Your task to perform on an android device: Open calendar and show me the second week of next month Image 0: 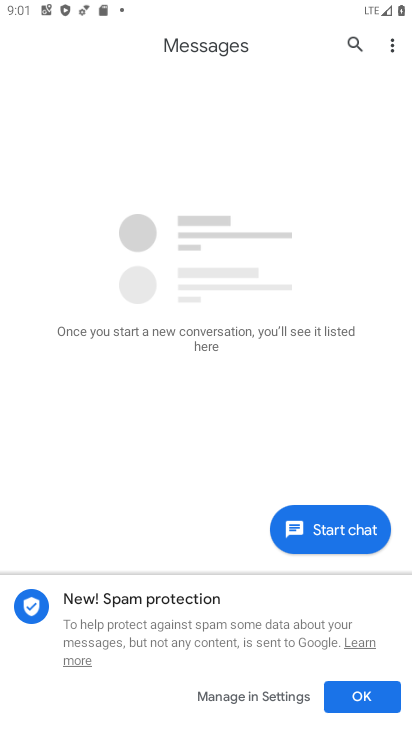
Step 0: press home button
Your task to perform on an android device: Open calendar and show me the second week of next month Image 1: 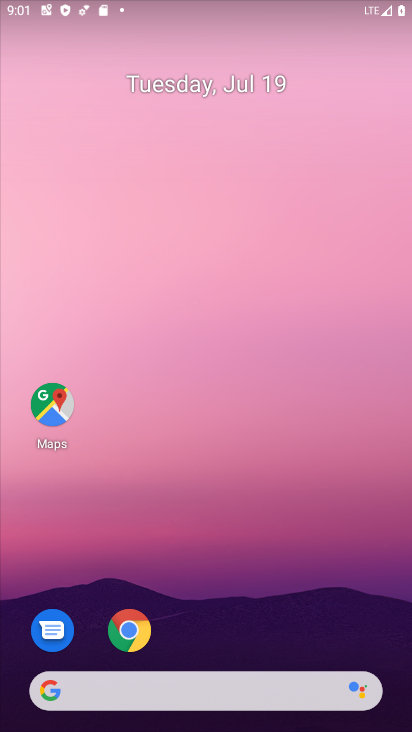
Step 1: drag from (192, 639) to (199, 82)
Your task to perform on an android device: Open calendar and show me the second week of next month Image 2: 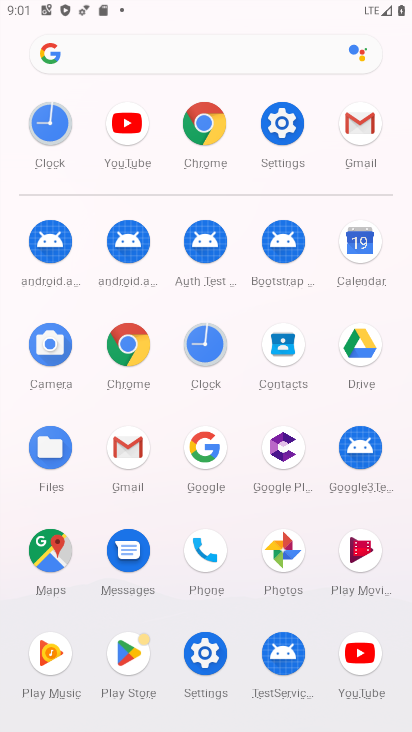
Step 2: click (365, 235)
Your task to perform on an android device: Open calendar and show me the second week of next month Image 3: 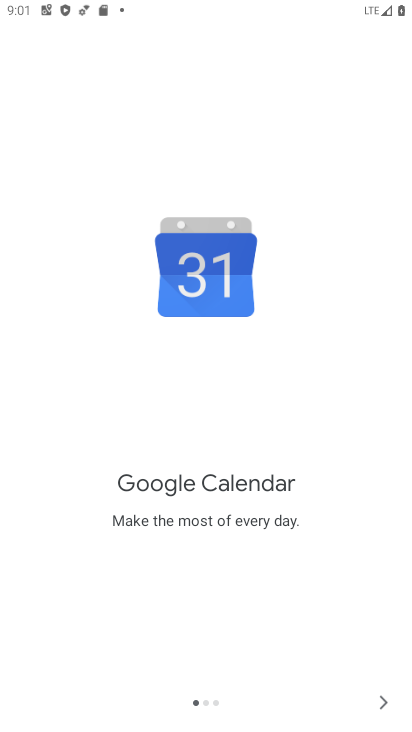
Step 3: click (379, 704)
Your task to perform on an android device: Open calendar and show me the second week of next month Image 4: 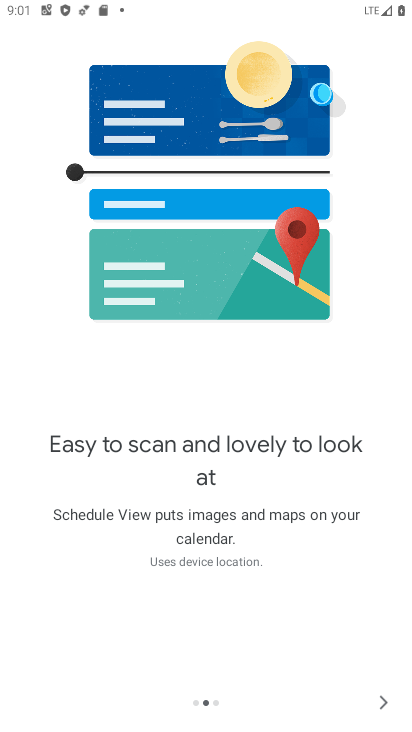
Step 4: click (384, 702)
Your task to perform on an android device: Open calendar and show me the second week of next month Image 5: 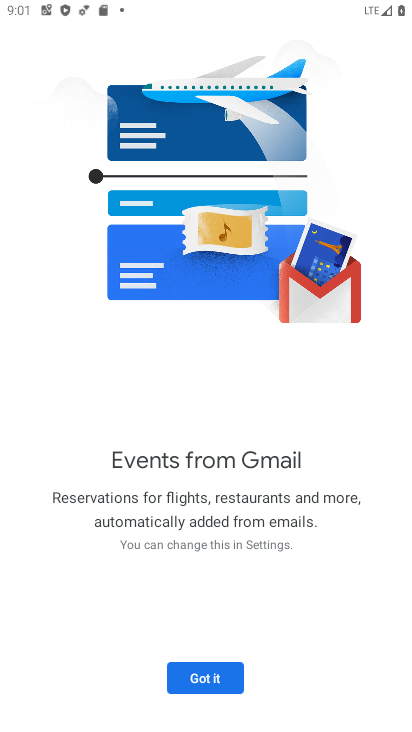
Step 5: click (210, 683)
Your task to perform on an android device: Open calendar and show me the second week of next month Image 6: 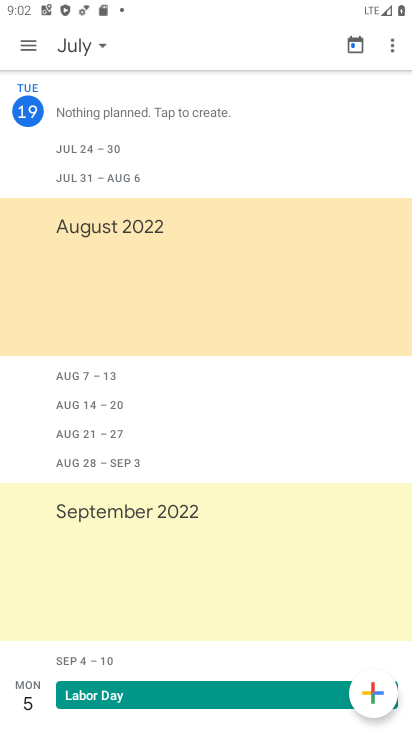
Step 6: click (87, 49)
Your task to perform on an android device: Open calendar and show me the second week of next month Image 7: 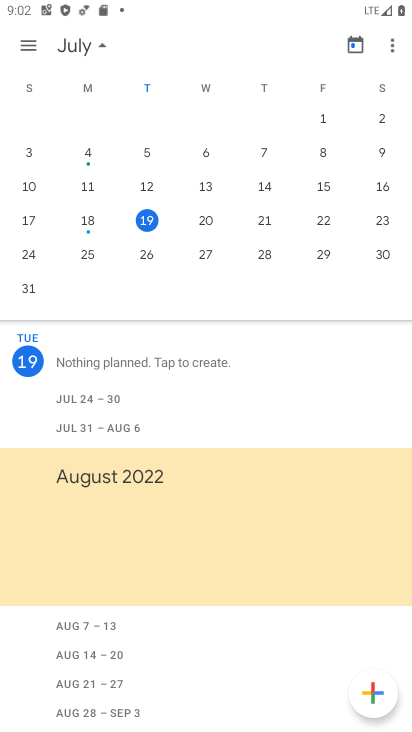
Step 7: drag from (397, 286) to (7, 217)
Your task to perform on an android device: Open calendar and show me the second week of next month Image 8: 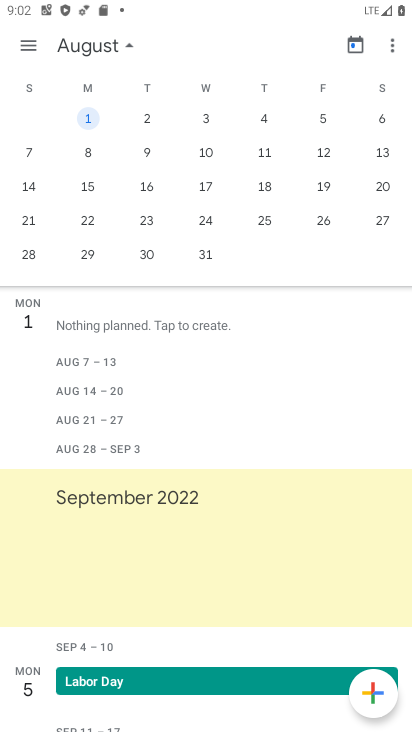
Step 8: click (208, 153)
Your task to perform on an android device: Open calendar and show me the second week of next month Image 9: 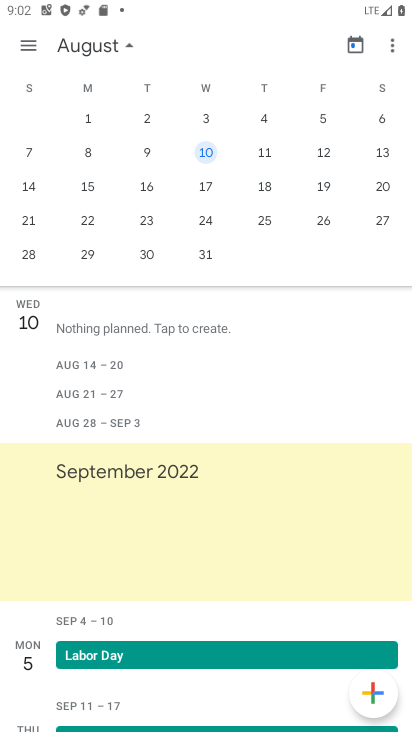
Step 9: task complete